Your task to perform on an android device: Open maps Image 0: 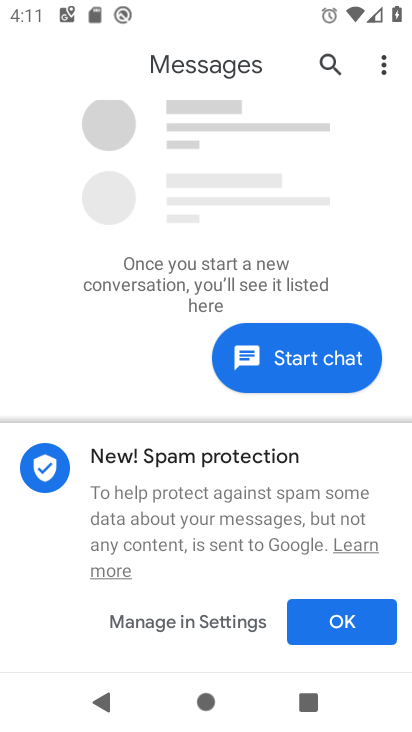
Step 0: press home button
Your task to perform on an android device: Open maps Image 1: 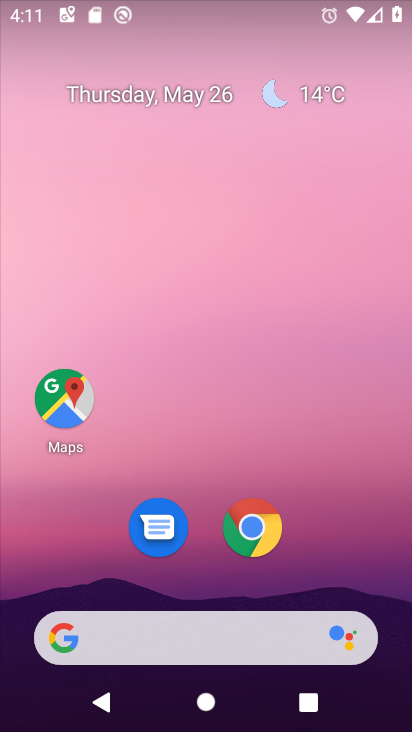
Step 1: click (62, 399)
Your task to perform on an android device: Open maps Image 2: 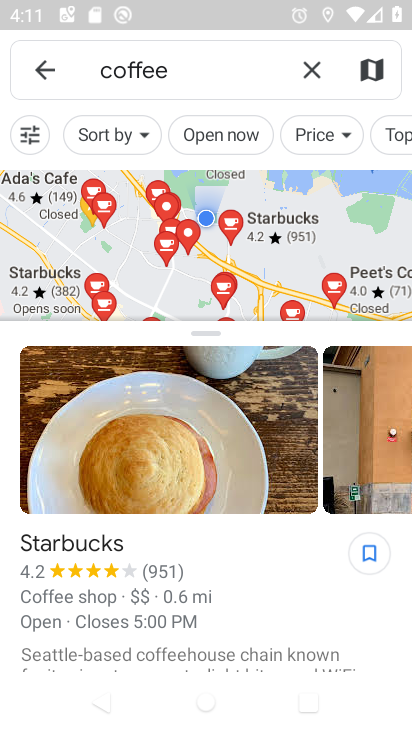
Step 2: click (40, 74)
Your task to perform on an android device: Open maps Image 3: 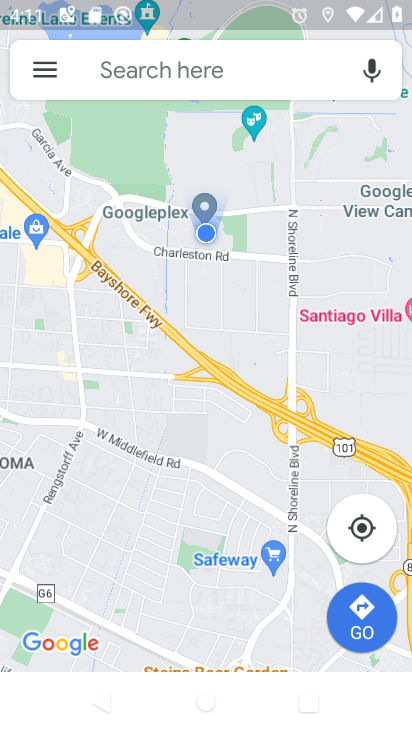
Step 3: task complete